Your task to perform on an android device: Turn off the flashlight Image 0: 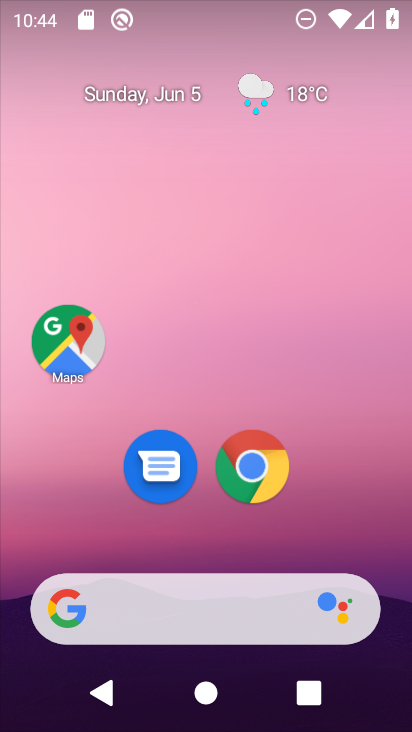
Step 0: drag from (365, 577) to (242, 34)
Your task to perform on an android device: Turn off the flashlight Image 1: 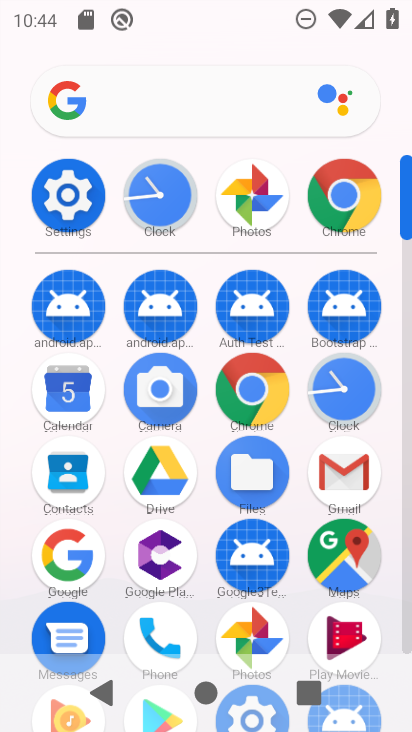
Step 1: drag from (12, 628) to (26, 277)
Your task to perform on an android device: Turn off the flashlight Image 2: 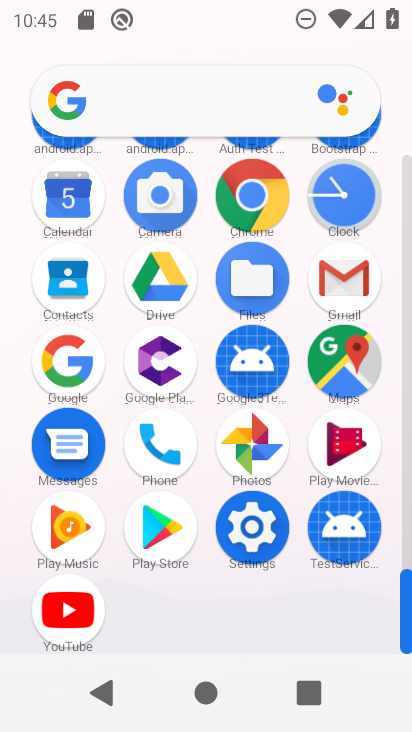
Step 2: click (253, 527)
Your task to perform on an android device: Turn off the flashlight Image 3: 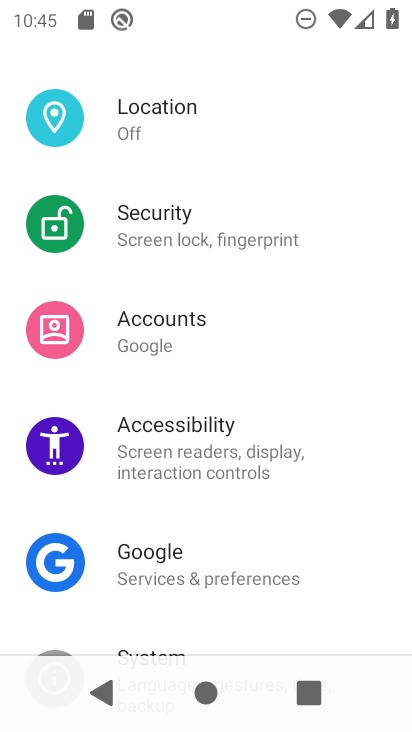
Step 3: drag from (241, 156) to (270, 606)
Your task to perform on an android device: Turn off the flashlight Image 4: 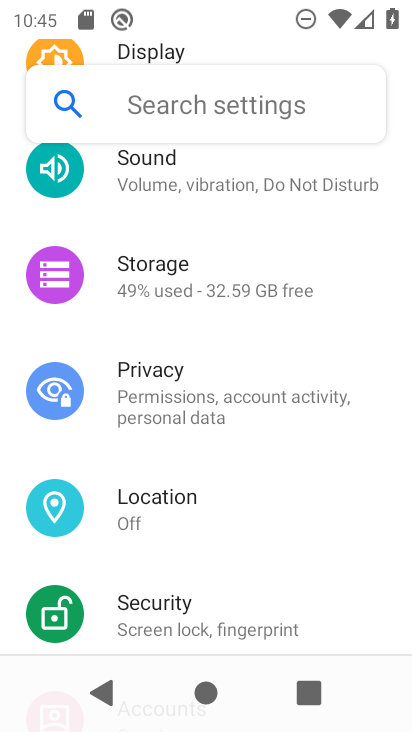
Step 4: drag from (277, 293) to (268, 642)
Your task to perform on an android device: Turn off the flashlight Image 5: 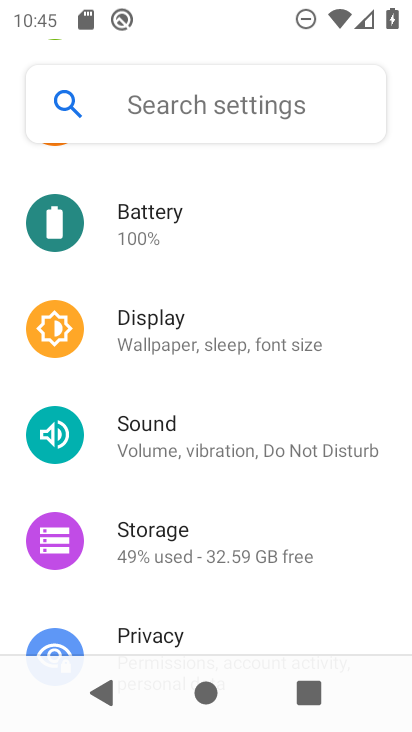
Step 5: drag from (287, 528) to (292, 636)
Your task to perform on an android device: Turn off the flashlight Image 6: 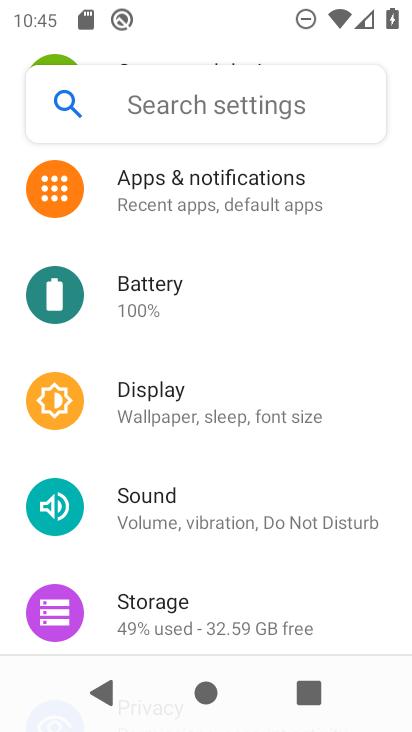
Step 6: drag from (276, 205) to (301, 593)
Your task to perform on an android device: Turn off the flashlight Image 7: 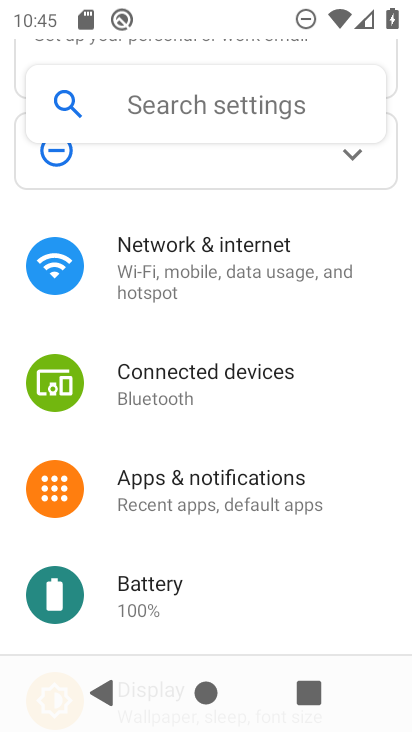
Step 7: click (255, 281)
Your task to perform on an android device: Turn off the flashlight Image 8: 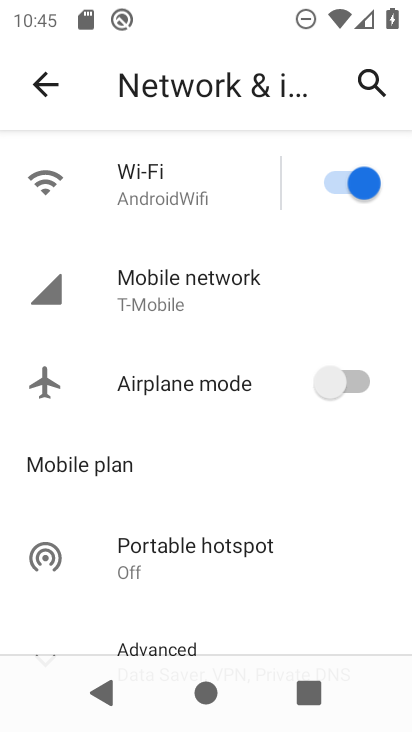
Step 8: drag from (179, 557) to (171, 182)
Your task to perform on an android device: Turn off the flashlight Image 9: 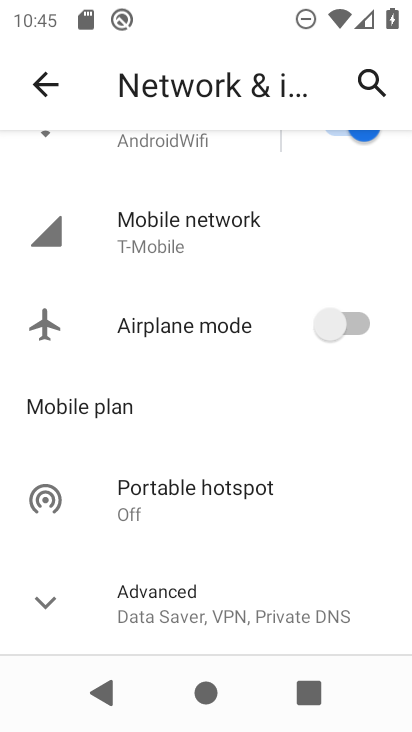
Step 9: drag from (174, 164) to (197, 523)
Your task to perform on an android device: Turn off the flashlight Image 10: 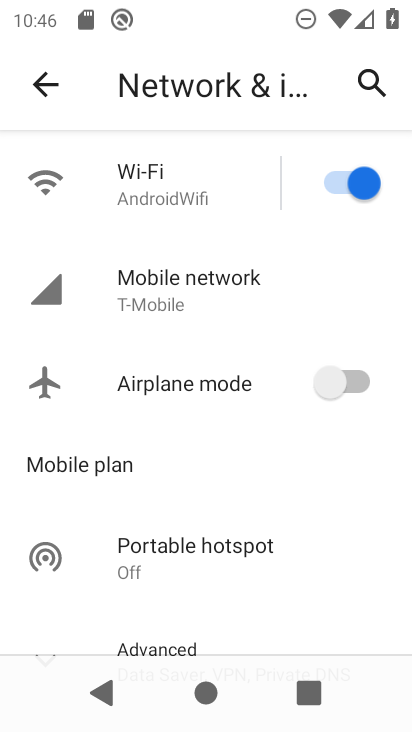
Step 10: drag from (159, 596) to (157, 242)
Your task to perform on an android device: Turn off the flashlight Image 11: 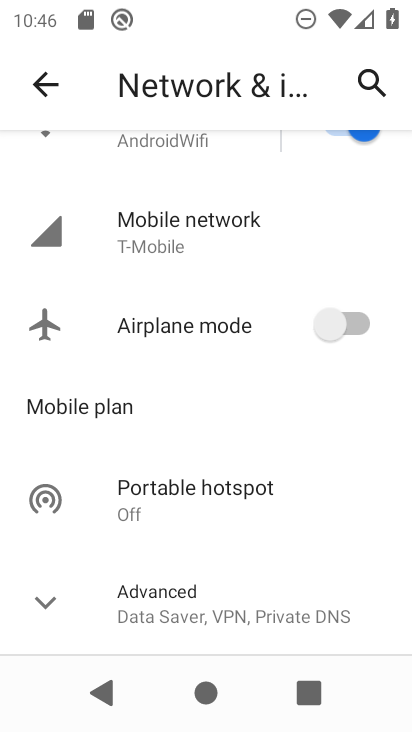
Step 11: click (32, 602)
Your task to perform on an android device: Turn off the flashlight Image 12: 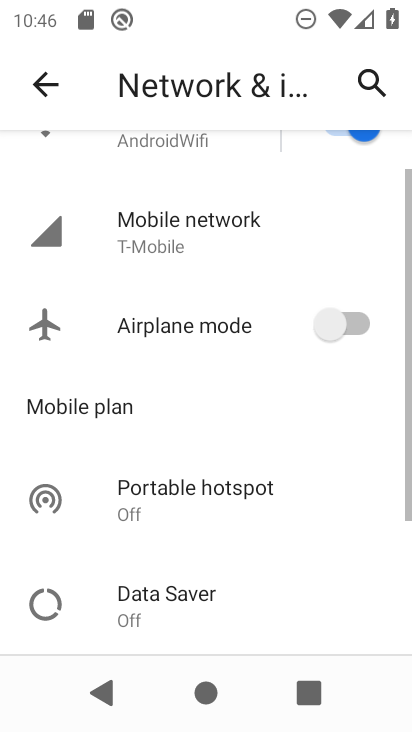
Step 12: task complete